Your task to perform on an android device: add a contact Image 0: 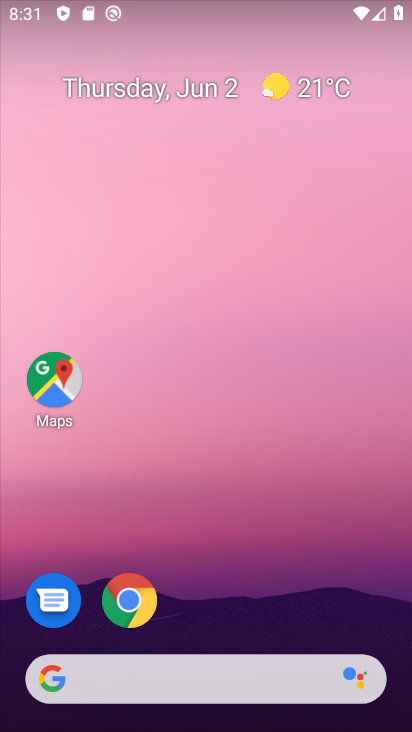
Step 0: drag from (232, 628) to (232, 215)
Your task to perform on an android device: add a contact Image 1: 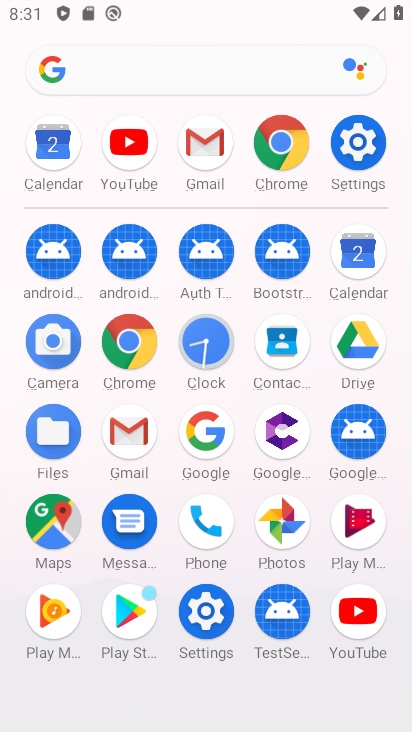
Step 1: click (276, 344)
Your task to perform on an android device: add a contact Image 2: 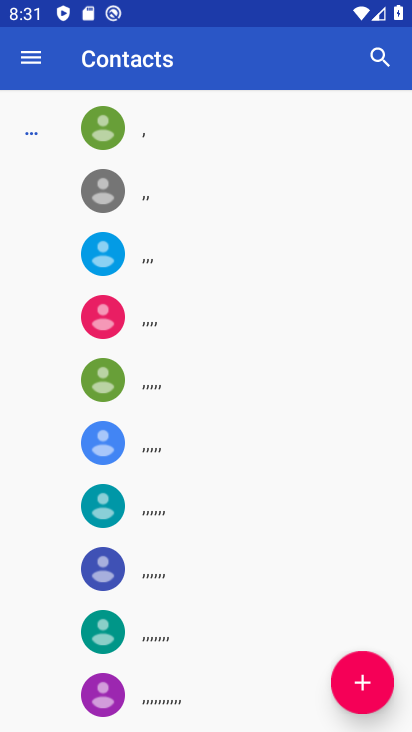
Step 2: click (363, 673)
Your task to perform on an android device: add a contact Image 3: 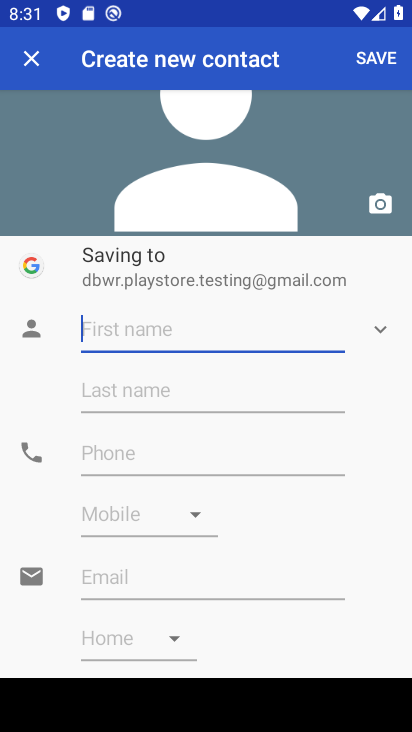
Step 3: type "hjjv"
Your task to perform on an android device: add a contact Image 4: 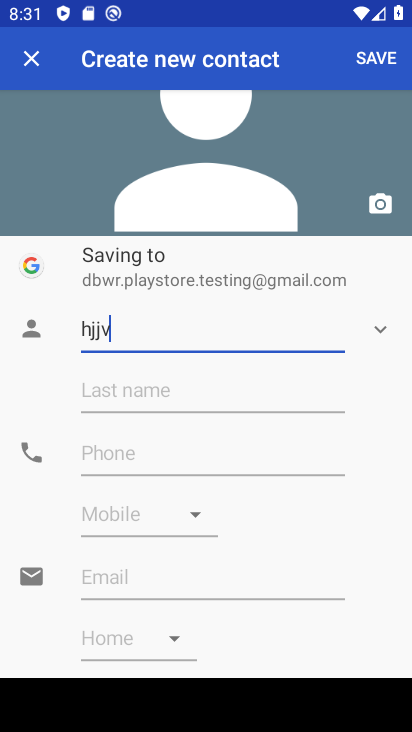
Step 4: click (112, 455)
Your task to perform on an android device: add a contact Image 5: 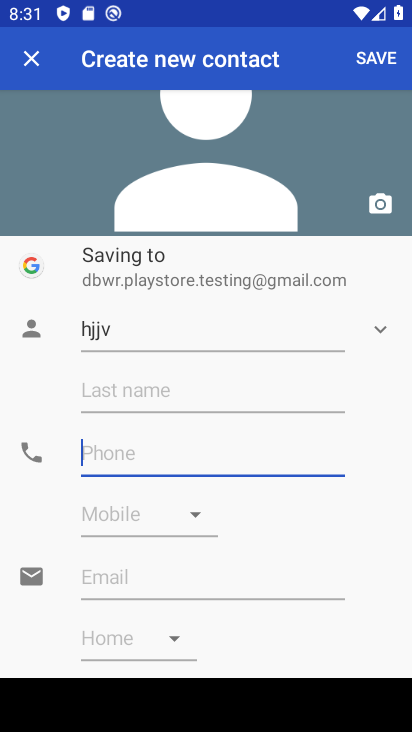
Step 5: type "986876757"
Your task to perform on an android device: add a contact Image 6: 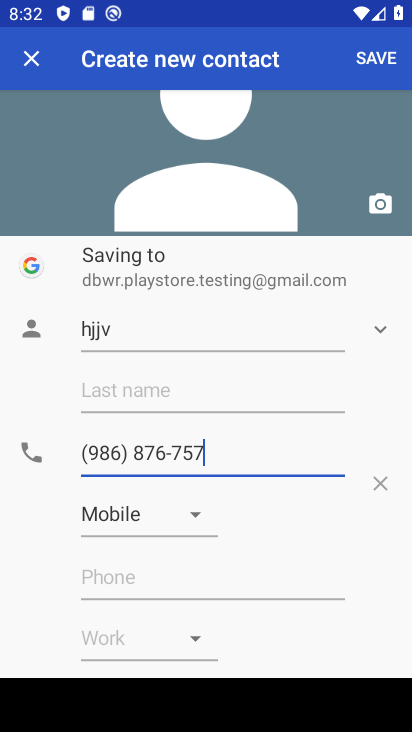
Step 6: click (375, 53)
Your task to perform on an android device: add a contact Image 7: 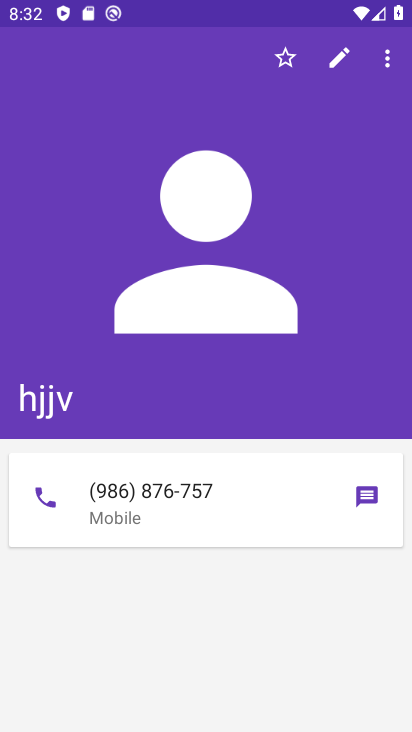
Step 7: task complete